Your task to perform on an android device: Add "logitech g502" to the cart on amazon.com, then select checkout. Image 0: 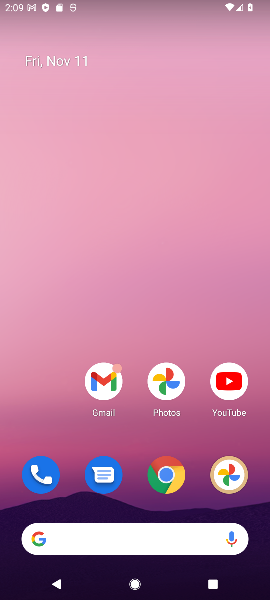
Step 0: drag from (135, 434) to (135, 69)
Your task to perform on an android device: Add "logitech g502" to the cart on amazon.com, then select checkout. Image 1: 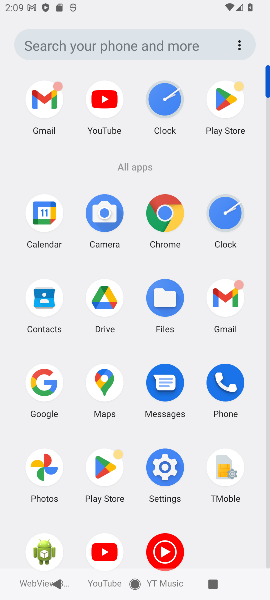
Step 1: click (172, 204)
Your task to perform on an android device: Add "logitech g502" to the cart on amazon.com, then select checkout. Image 2: 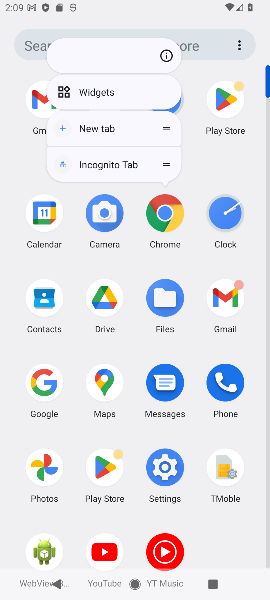
Step 2: click (168, 220)
Your task to perform on an android device: Add "logitech g502" to the cart on amazon.com, then select checkout. Image 3: 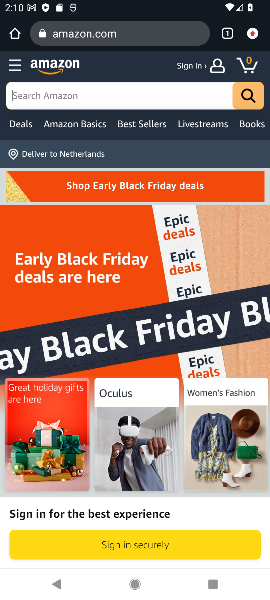
Step 3: click (77, 94)
Your task to perform on an android device: Add "logitech g502" to the cart on amazon.com, then select checkout. Image 4: 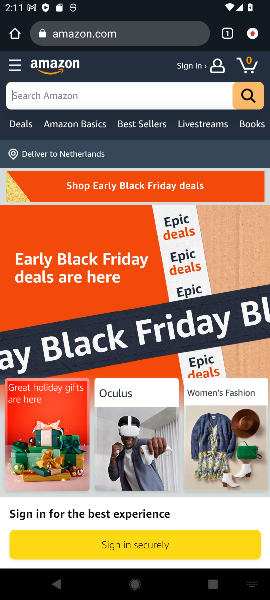
Step 4: type "logitech g502"
Your task to perform on an android device: Add "logitech g502" to the cart on amazon.com, then select checkout. Image 5: 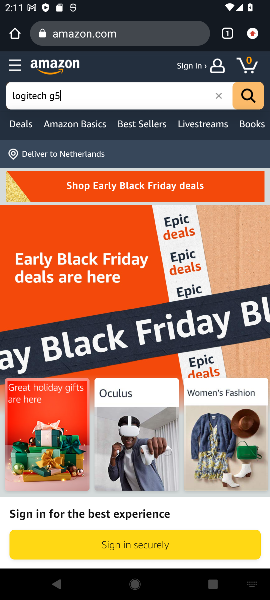
Step 5: press enter
Your task to perform on an android device: Add "logitech g502" to the cart on amazon.com, then select checkout. Image 6: 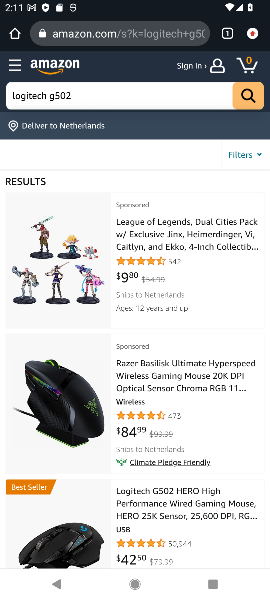
Step 6: click (133, 221)
Your task to perform on an android device: Add "logitech g502" to the cart on amazon.com, then select checkout. Image 7: 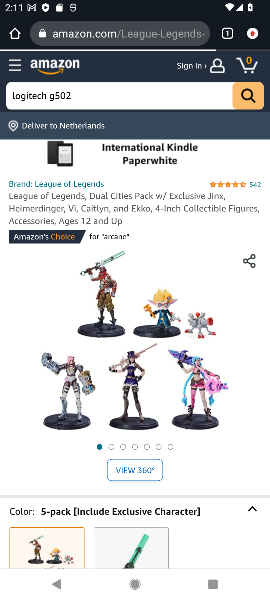
Step 7: drag from (150, 446) to (225, 193)
Your task to perform on an android device: Add "logitech g502" to the cart on amazon.com, then select checkout. Image 8: 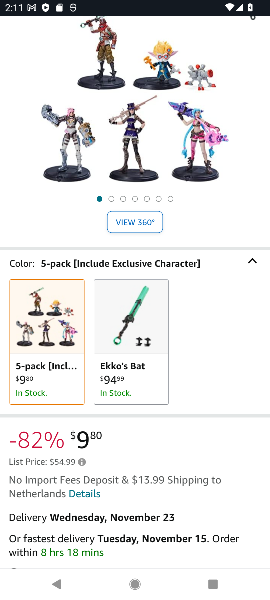
Step 8: drag from (177, 463) to (216, 230)
Your task to perform on an android device: Add "logitech g502" to the cart on amazon.com, then select checkout. Image 9: 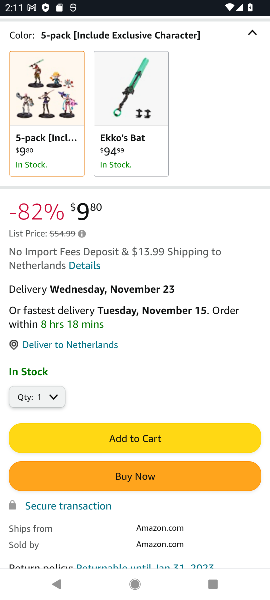
Step 9: click (149, 436)
Your task to perform on an android device: Add "logitech g502" to the cart on amazon.com, then select checkout. Image 10: 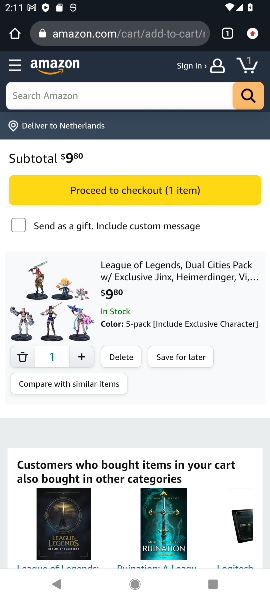
Step 10: click (170, 197)
Your task to perform on an android device: Add "logitech g502" to the cart on amazon.com, then select checkout. Image 11: 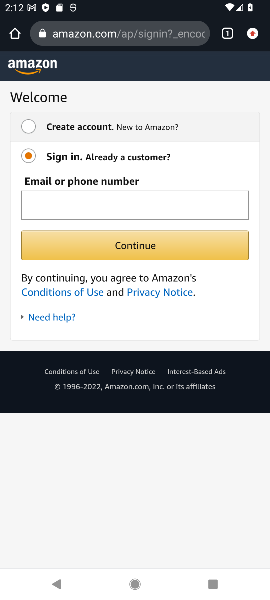
Step 11: task complete